Your task to perform on an android device: turn pop-ups off in chrome Image 0: 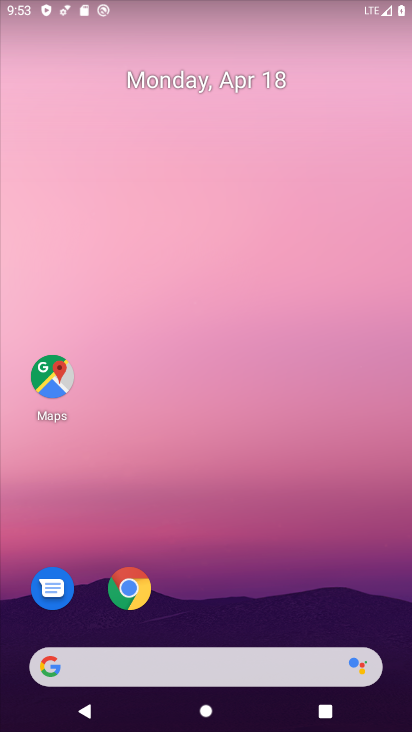
Step 0: click (45, 369)
Your task to perform on an android device: turn pop-ups off in chrome Image 1: 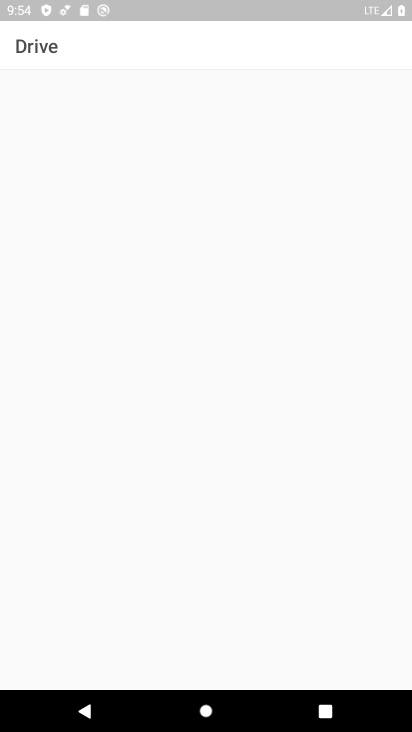
Step 1: press home button
Your task to perform on an android device: turn pop-ups off in chrome Image 2: 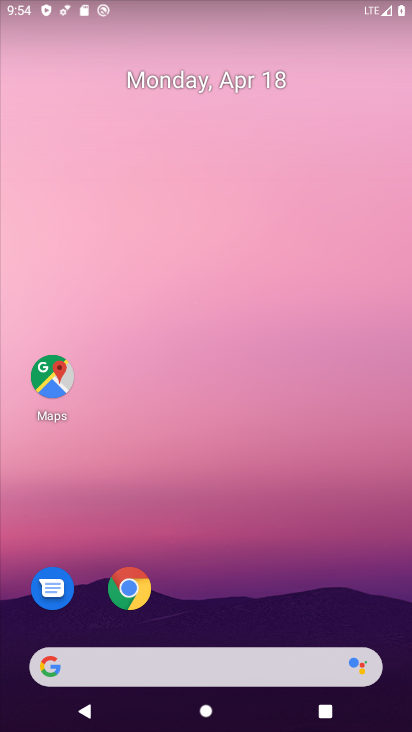
Step 2: click (123, 589)
Your task to perform on an android device: turn pop-ups off in chrome Image 3: 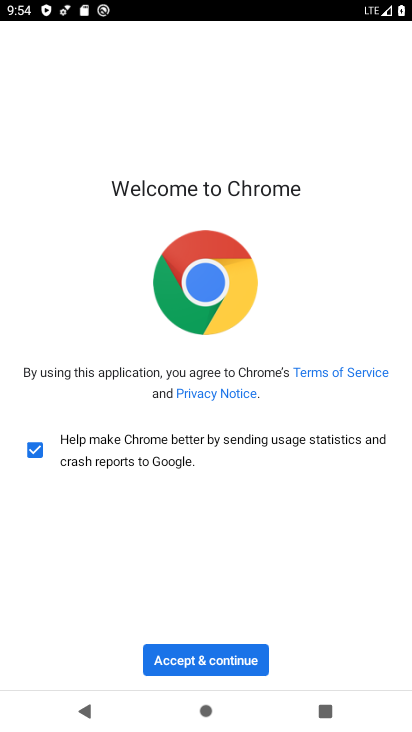
Step 3: click (199, 649)
Your task to perform on an android device: turn pop-ups off in chrome Image 4: 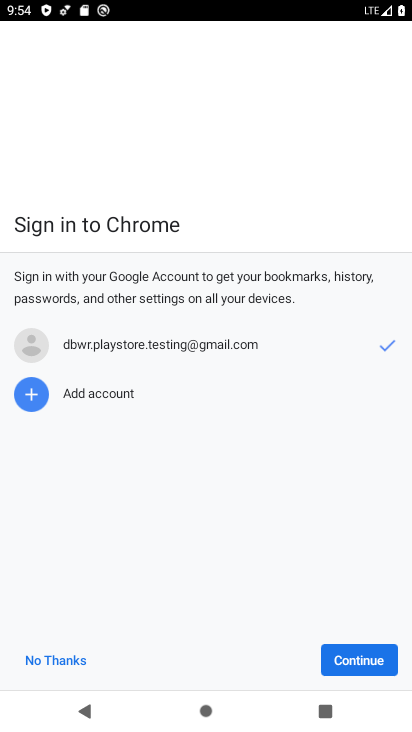
Step 4: click (344, 658)
Your task to perform on an android device: turn pop-ups off in chrome Image 5: 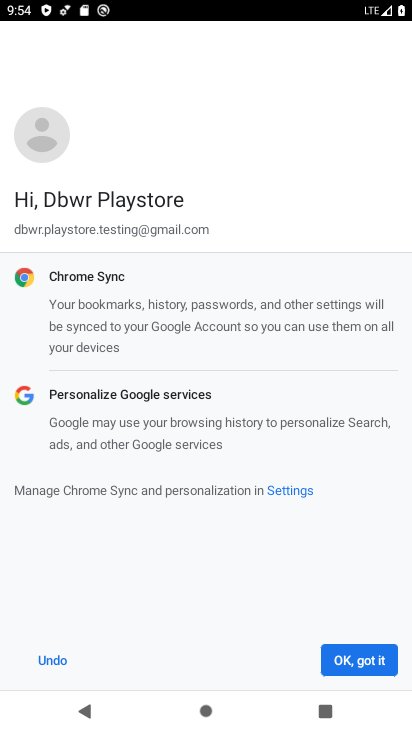
Step 5: click (359, 659)
Your task to perform on an android device: turn pop-ups off in chrome Image 6: 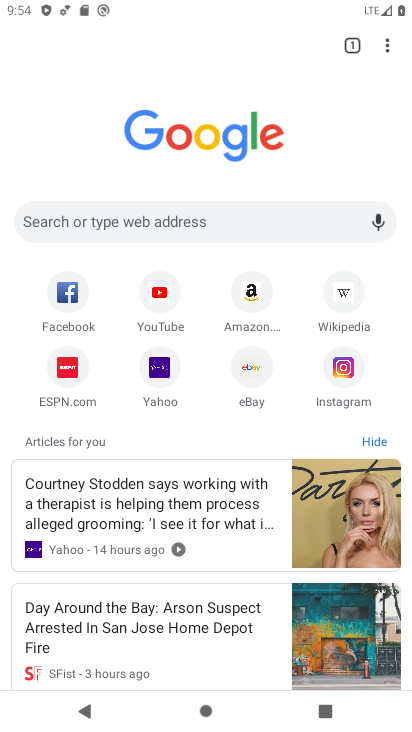
Step 6: click (385, 47)
Your task to perform on an android device: turn pop-ups off in chrome Image 7: 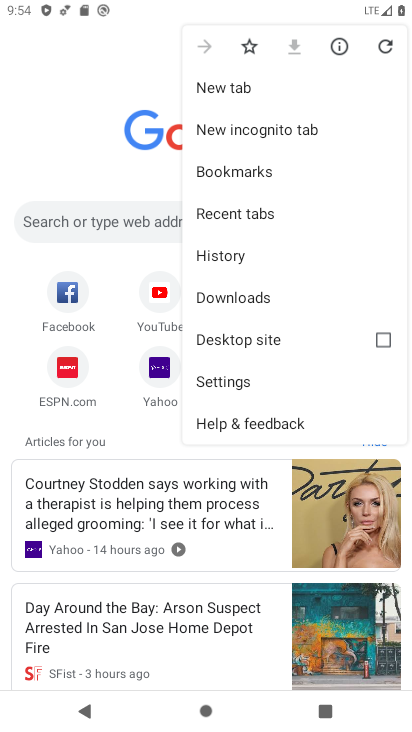
Step 7: click (232, 381)
Your task to perform on an android device: turn pop-ups off in chrome Image 8: 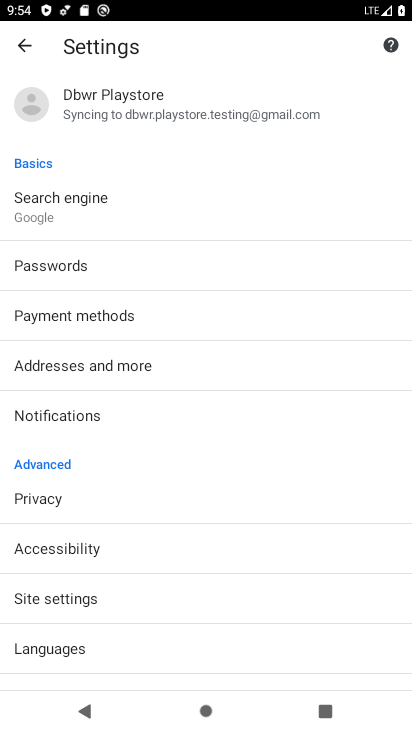
Step 8: click (59, 596)
Your task to perform on an android device: turn pop-ups off in chrome Image 9: 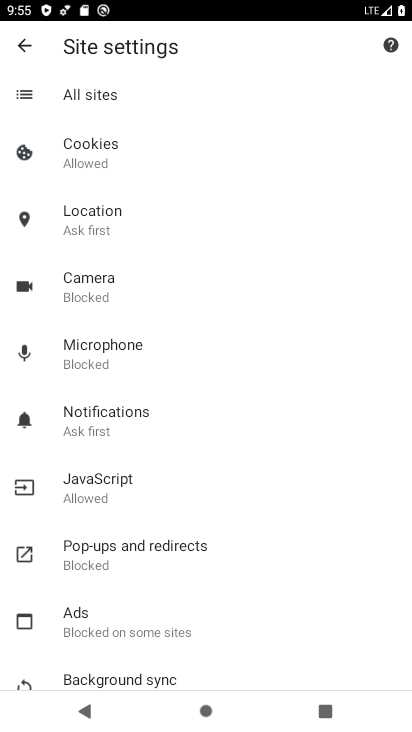
Step 9: click (110, 547)
Your task to perform on an android device: turn pop-ups off in chrome Image 10: 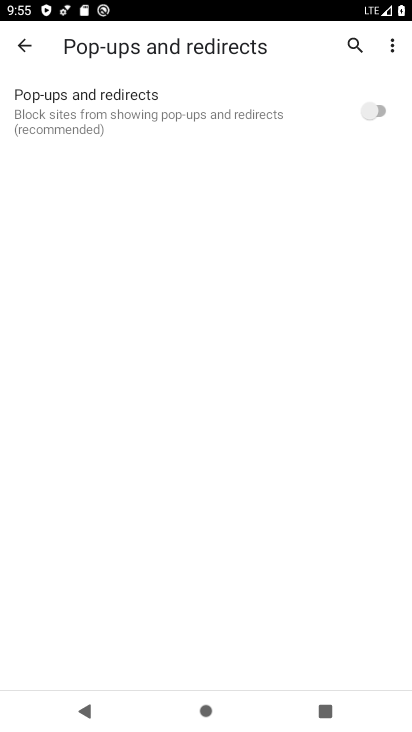
Step 10: task complete